Your task to perform on an android device: Show me recent news Image 0: 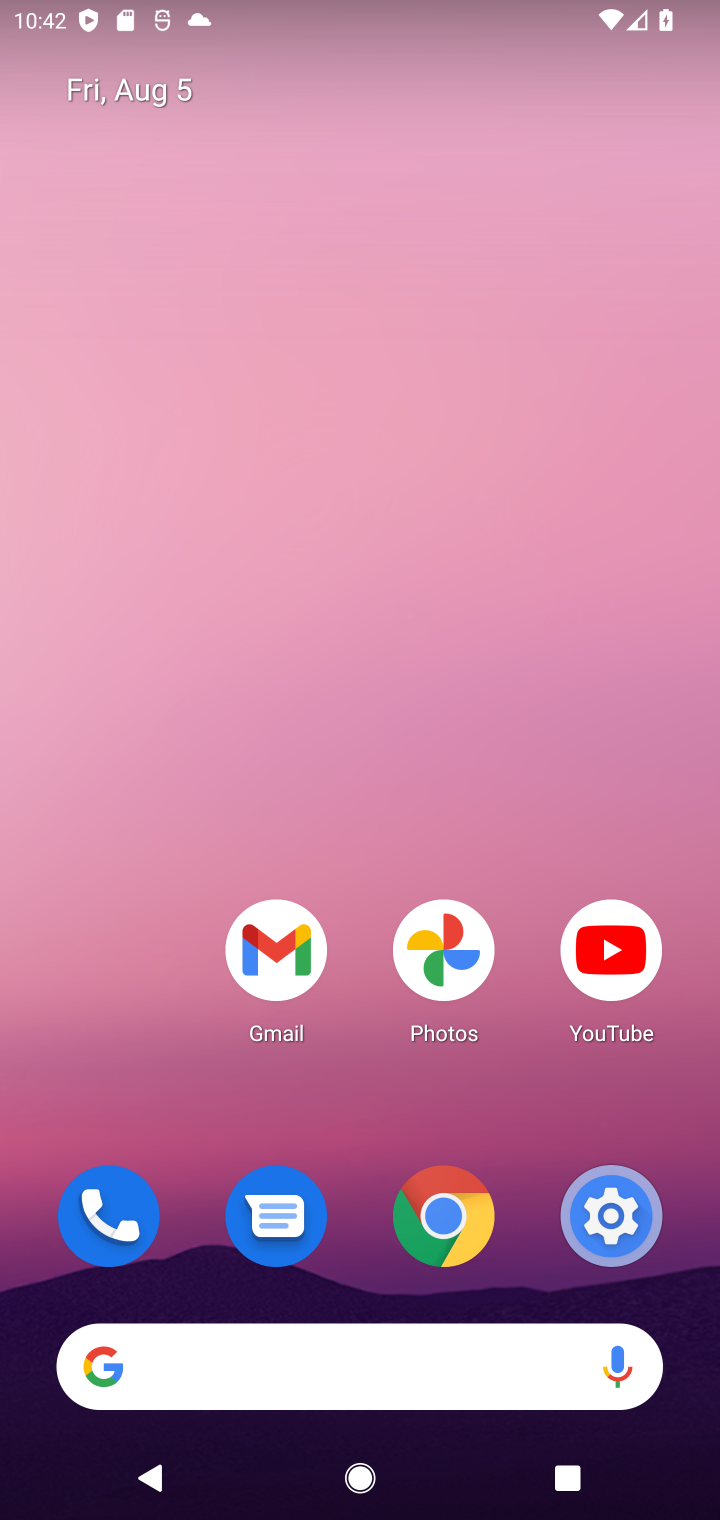
Step 0: drag from (485, 1363) to (448, 79)
Your task to perform on an android device: Show me recent news Image 1: 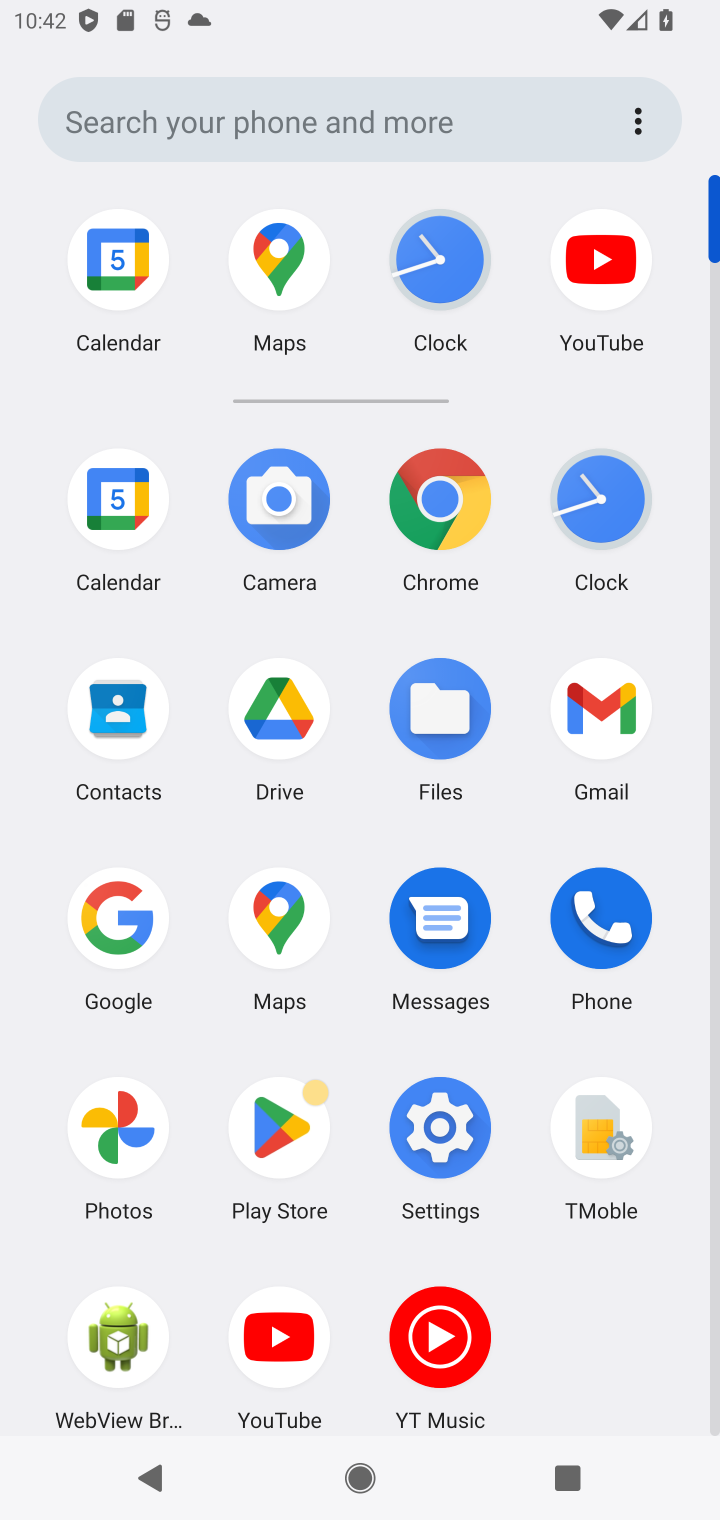
Step 1: click (427, 484)
Your task to perform on an android device: Show me recent news Image 2: 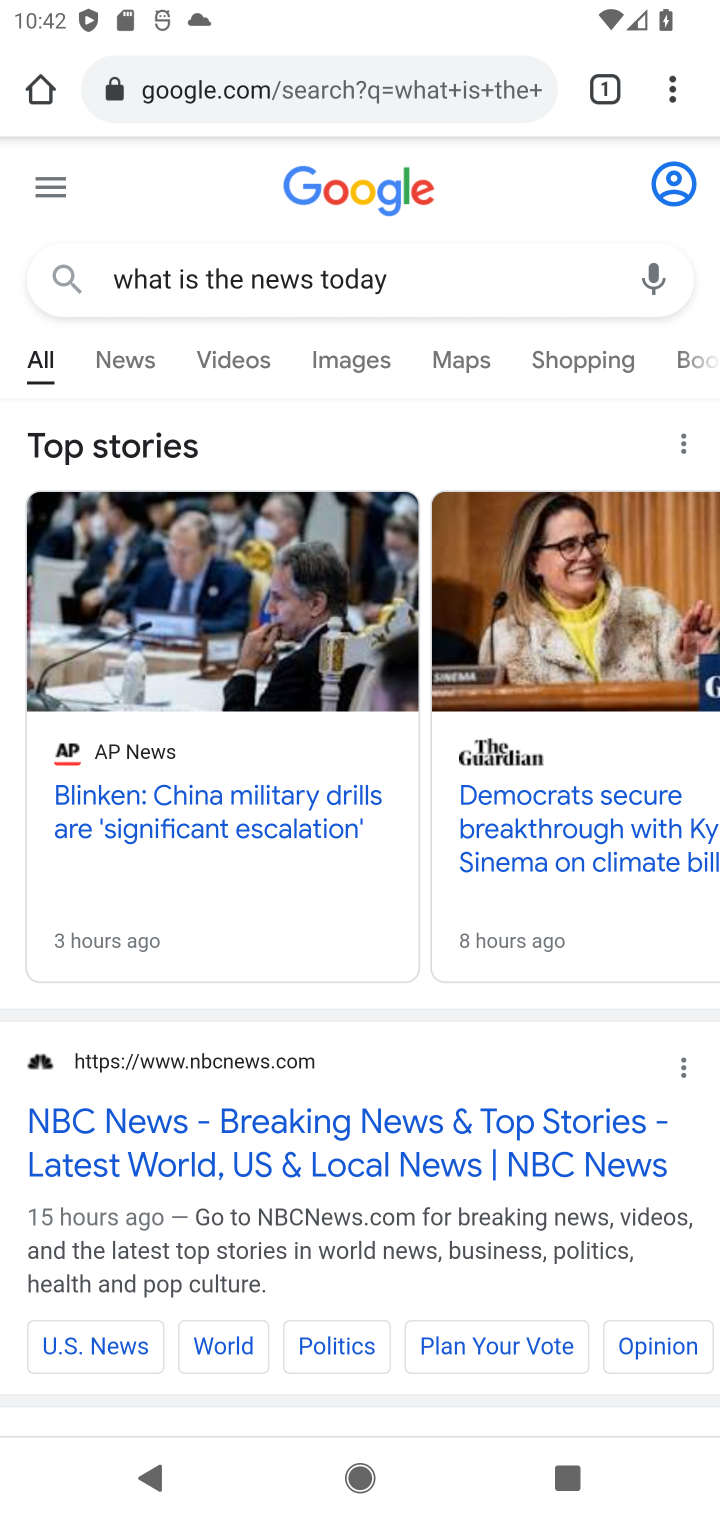
Step 2: click (303, 89)
Your task to perform on an android device: Show me recent news Image 3: 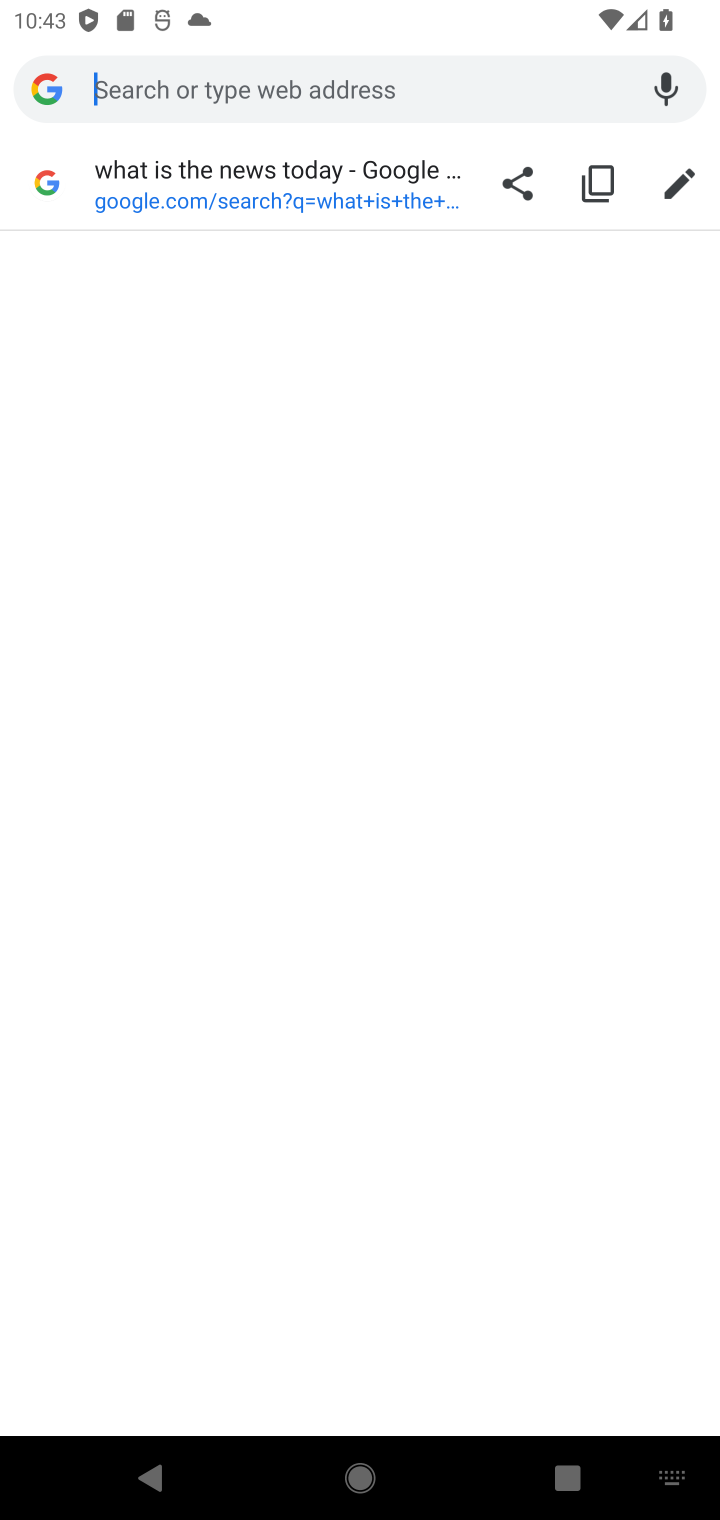
Step 3: type "show me recent news"
Your task to perform on an android device: Show me recent news Image 4: 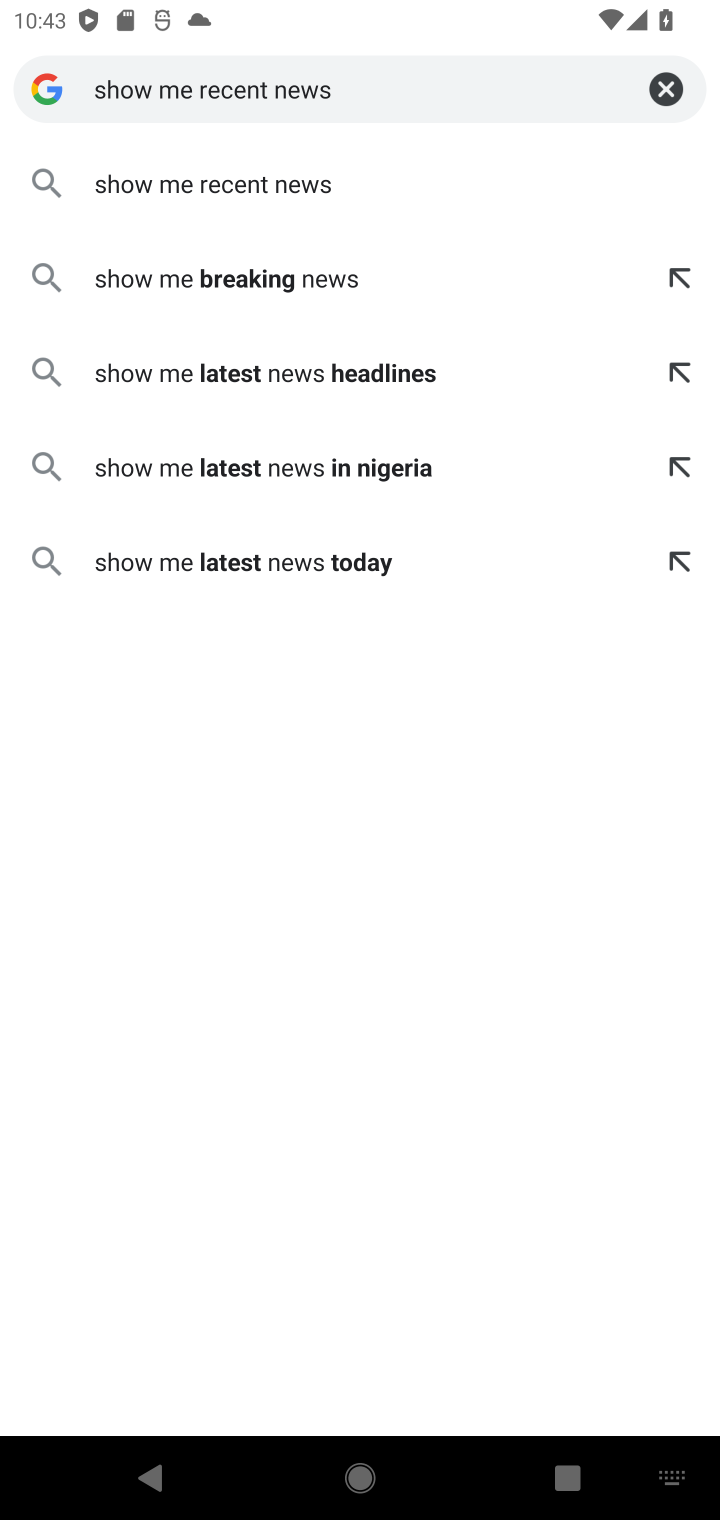
Step 4: click (364, 202)
Your task to perform on an android device: Show me recent news Image 5: 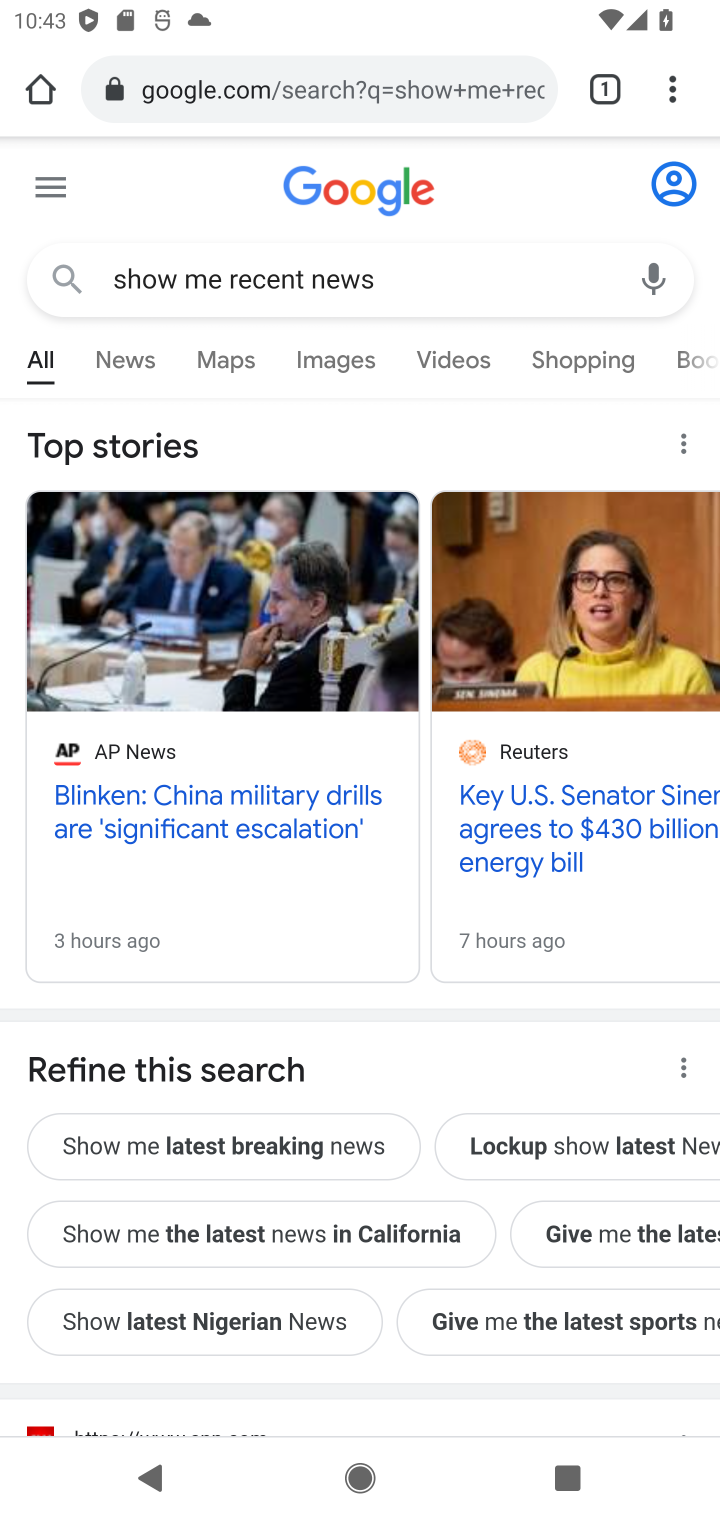
Step 5: task complete